Your task to perform on an android device: toggle sleep mode Image 0: 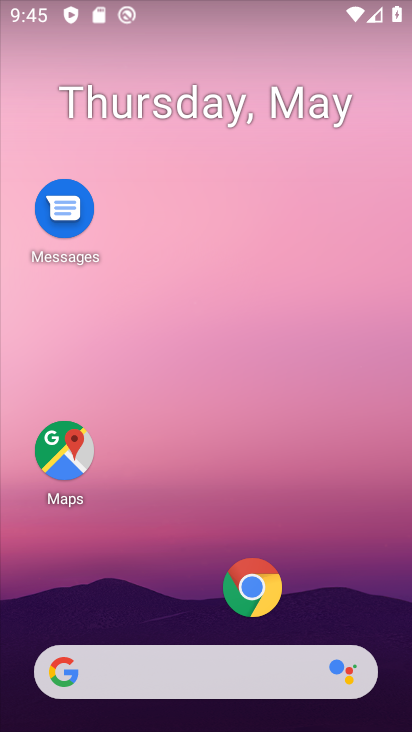
Step 0: drag from (166, 630) to (206, 59)
Your task to perform on an android device: toggle sleep mode Image 1: 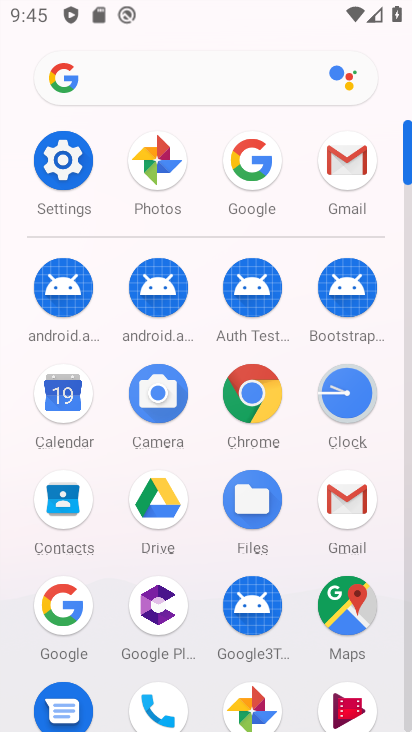
Step 1: click (66, 155)
Your task to perform on an android device: toggle sleep mode Image 2: 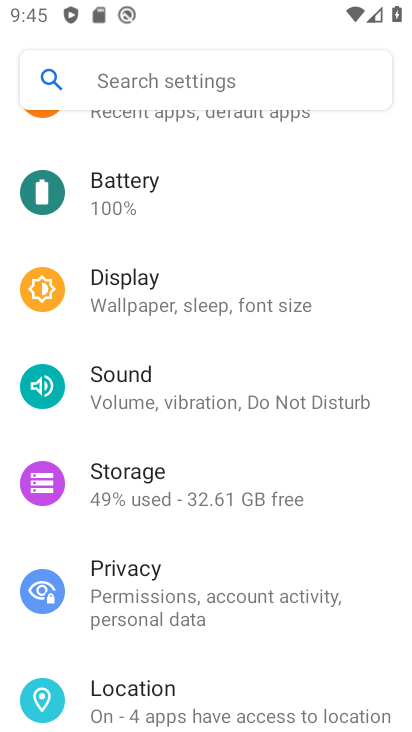
Step 2: click (185, 285)
Your task to perform on an android device: toggle sleep mode Image 3: 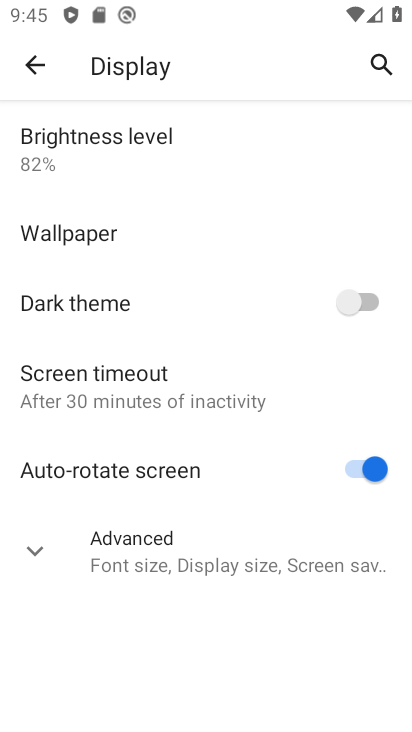
Step 3: task complete